Your task to perform on an android device: Open calendar and show me the fourth week of next month Image 0: 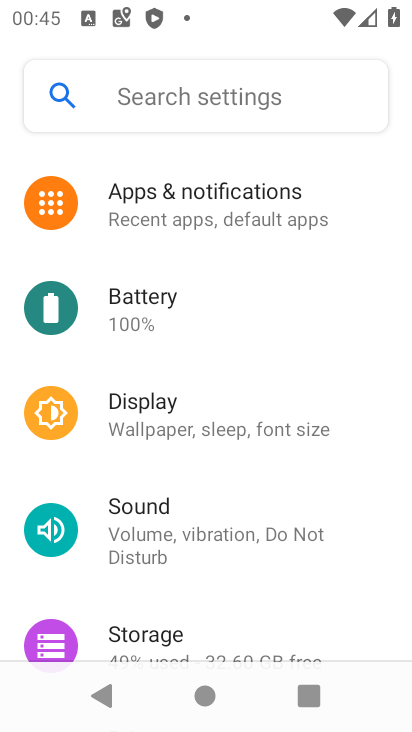
Step 0: press home button
Your task to perform on an android device: Open calendar and show me the fourth week of next month Image 1: 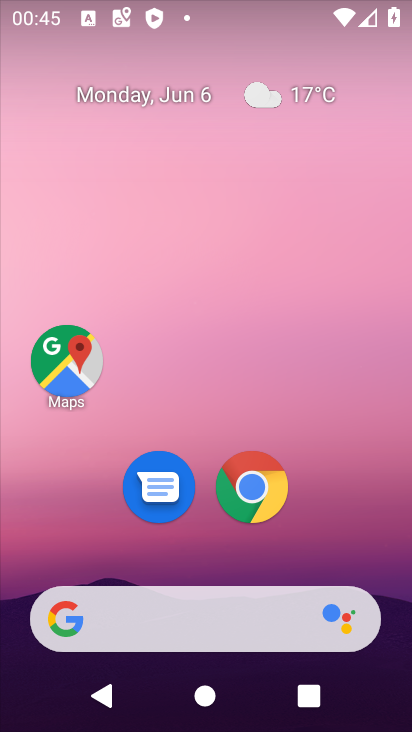
Step 1: drag from (402, 627) to (342, 94)
Your task to perform on an android device: Open calendar and show me the fourth week of next month Image 2: 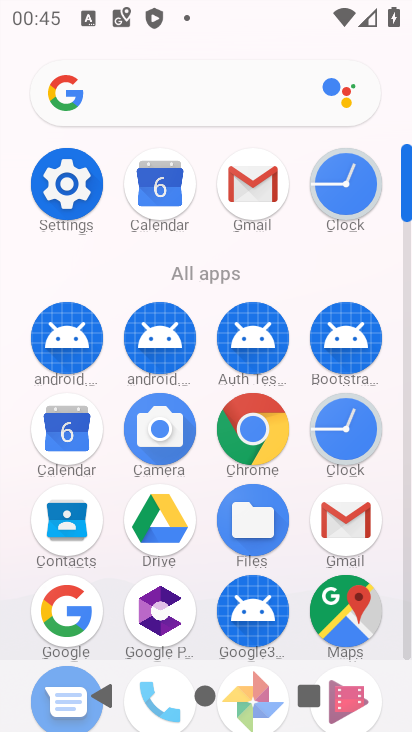
Step 2: click (408, 635)
Your task to perform on an android device: Open calendar and show me the fourth week of next month Image 3: 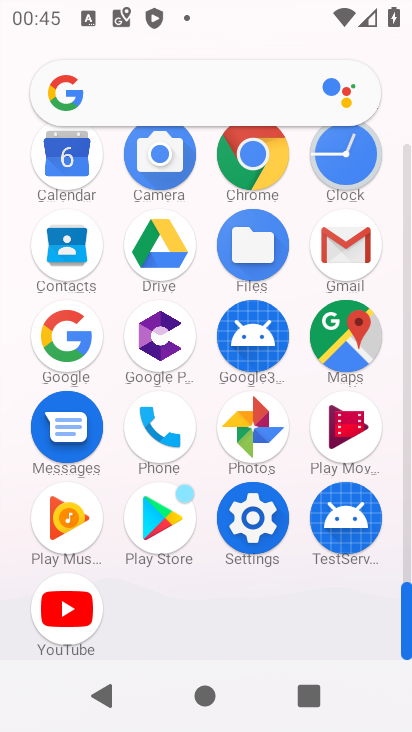
Step 3: click (64, 150)
Your task to perform on an android device: Open calendar and show me the fourth week of next month Image 4: 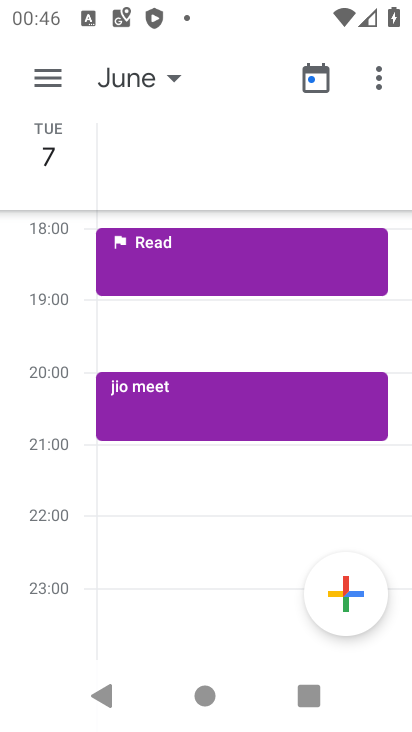
Step 4: click (52, 74)
Your task to perform on an android device: Open calendar and show me the fourth week of next month Image 5: 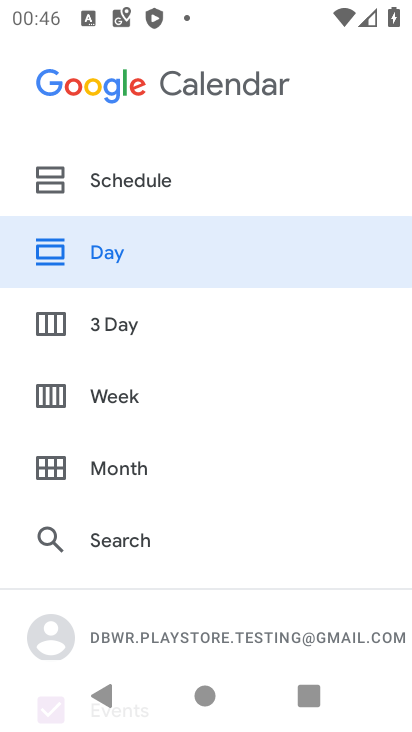
Step 5: click (119, 387)
Your task to perform on an android device: Open calendar and show me the fourth week of next month Image 6: 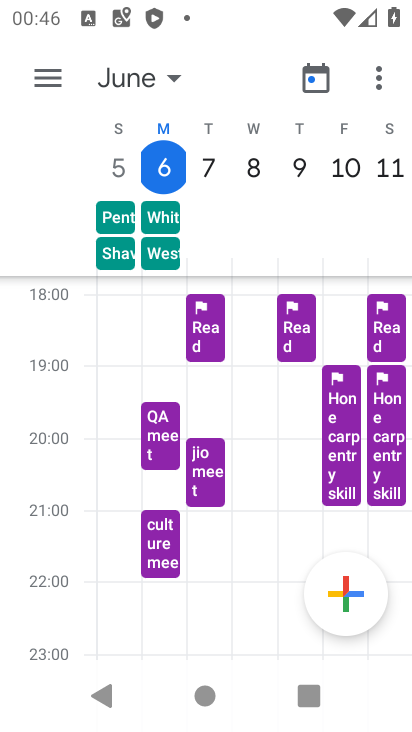
Step 6: click (173, 75)
Your task to perform on an android device: Open calendar and show me the fourth week of next month Image 7: 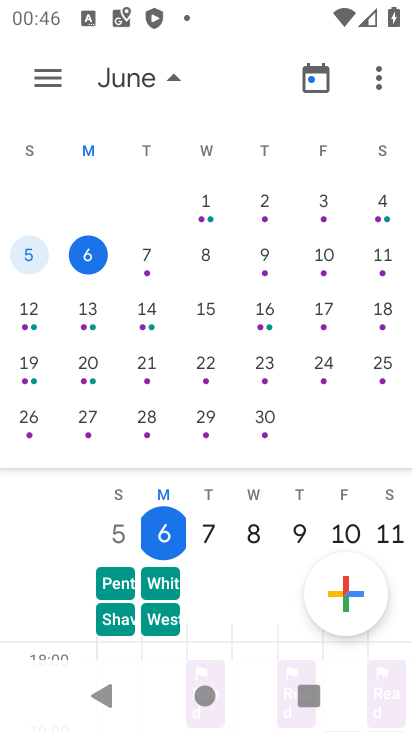
Step 7: drag from (381, 321) to (76, 303)
Your task to perform on an android device: Open calendar and show me the fourth week of next month Image 8: 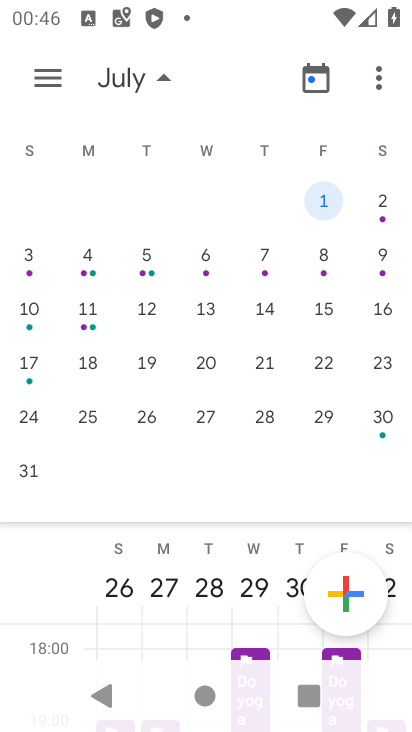
Step 8: click (30, 415)
Your task to perform on an android device: Open calendar and show me the fourth week of next month Image 9: 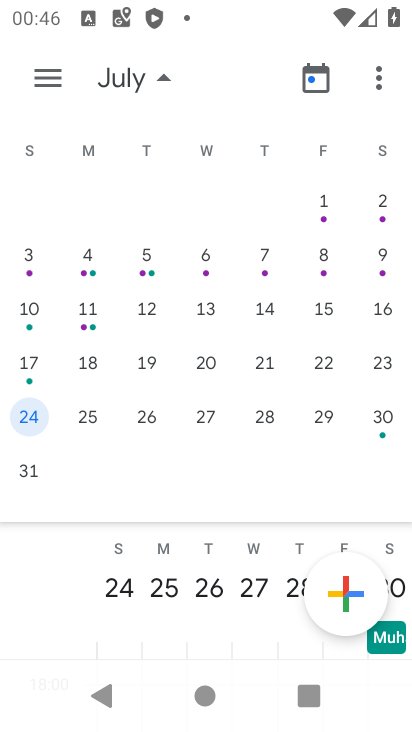
Step 9: task complete